Your task to perform on an android device: Open display settings Image 0: 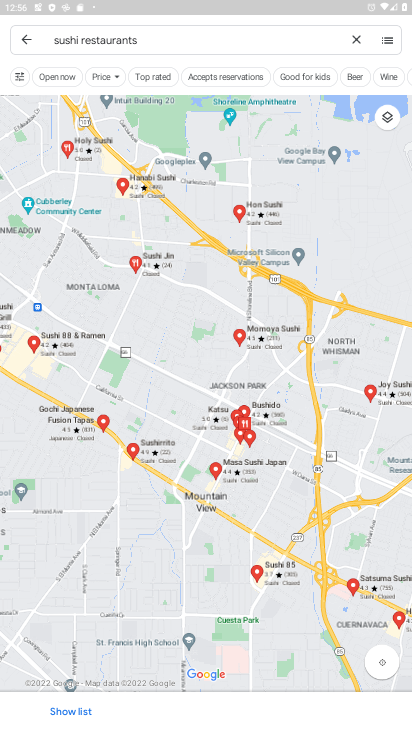
Step 0: press home button
Your task to perform on an android device: Open display settings Image 1: 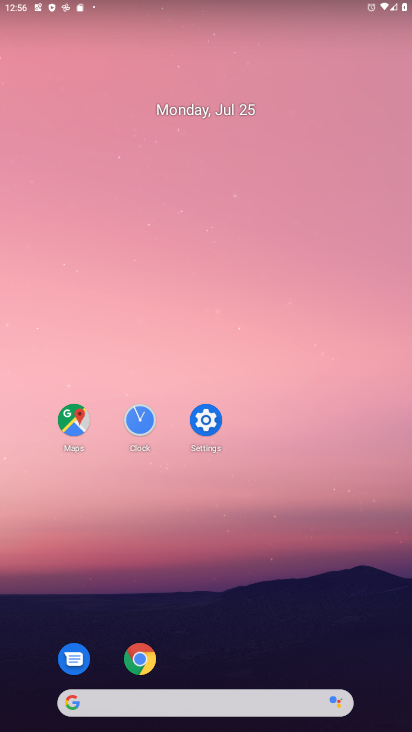
Step 1: click (206, 414)
Your task to perform on an android device: Open display settings Image 2: 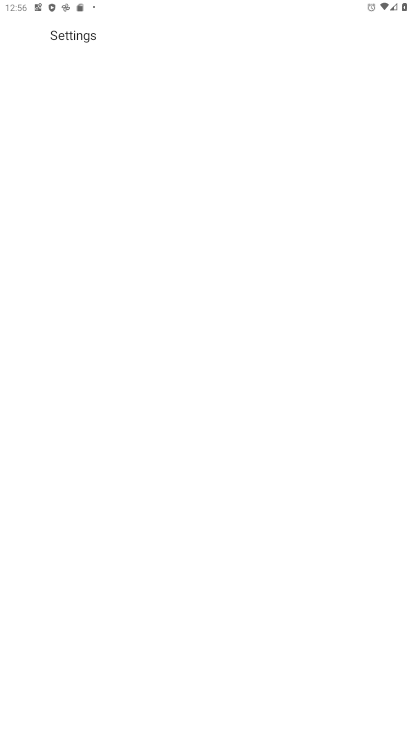
Step 2: click (206, 414)
Your task to perform on an android device: Open display settings Image 3: 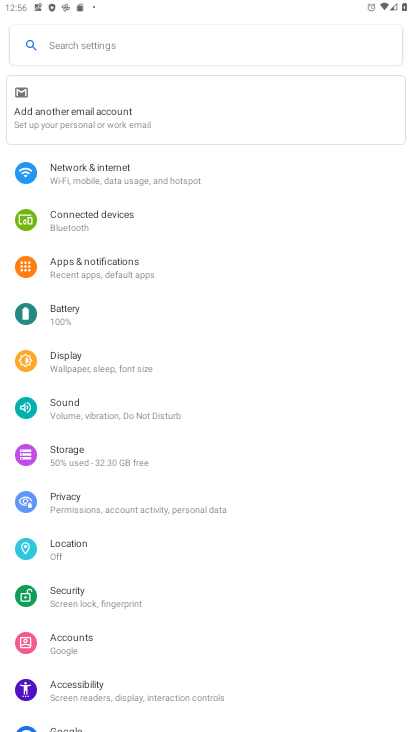
Step 3: click (58, 371)
Your task to perform on an android device: Open display settings Image 4: 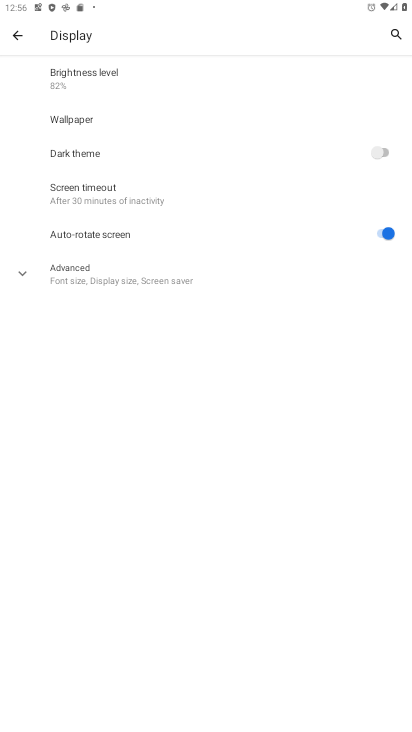
Step 4: task complete